Your task to perform on an android device: Open Google Chrome Image 0: 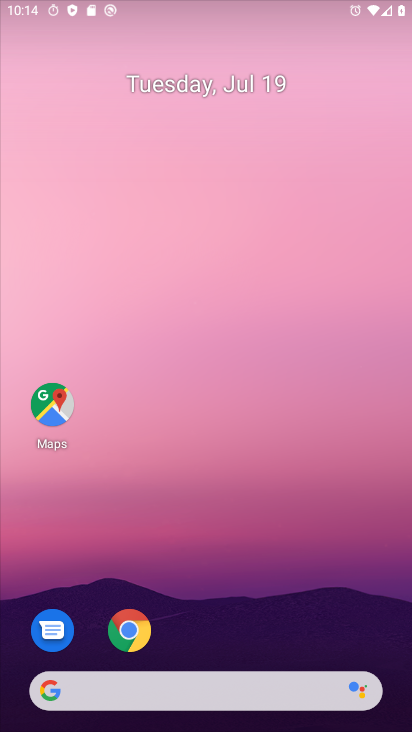
Step 0: press home button
Your task to perform on an android device: Open Google Chrome Image 1: 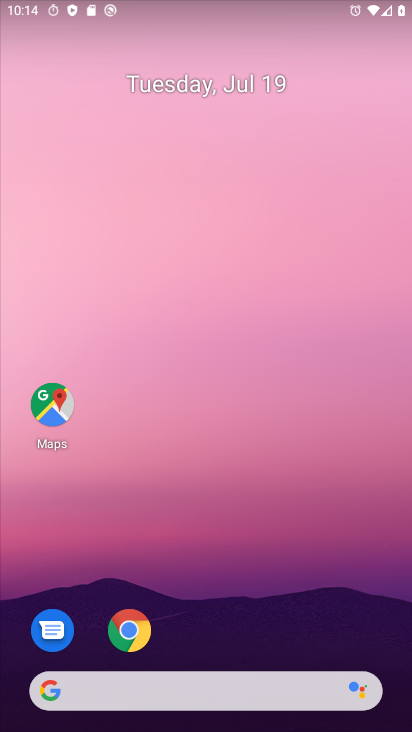
Step 1: drag from (194, 640) to (228, 61)
Your task to perform on an android device: Open Google Chrome Image 2: 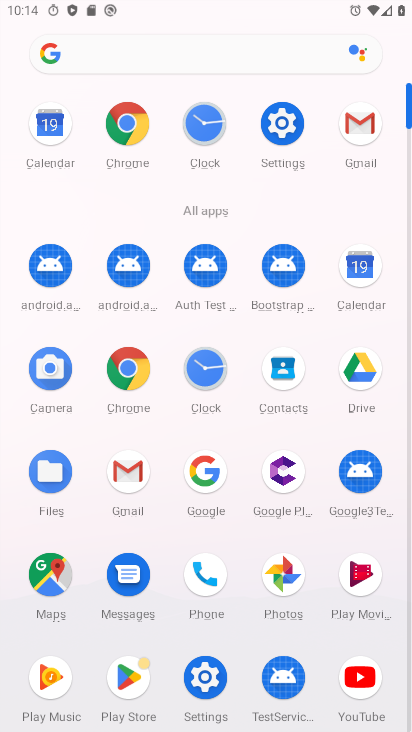
Step 2: click (126, 125)
Your task to perform on an android device: Open Google Chrome Image 3: 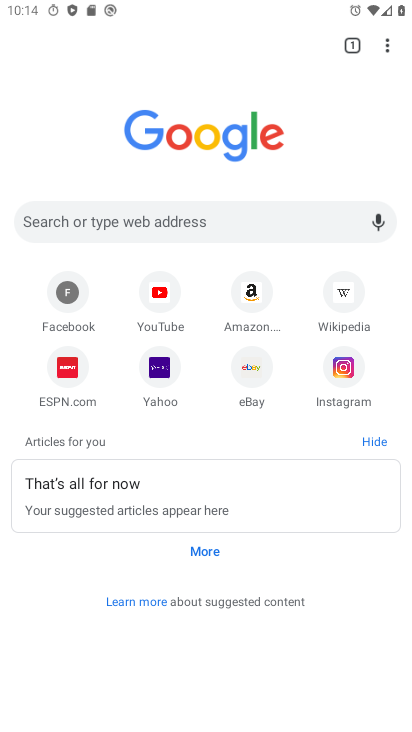
Step 3: task complete